Your task to perform on an android device: Search for pizza restaurants on Maps Image 0: 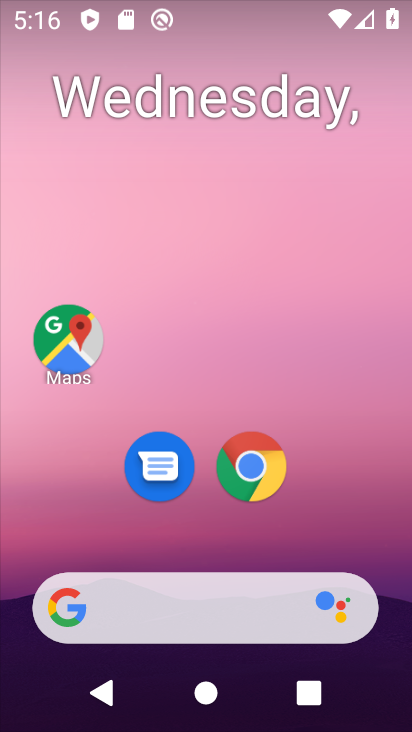
Step 0: click (82, 352)
Your task to perform on an android device: Search for pizza restaurants on Maps Image 1: 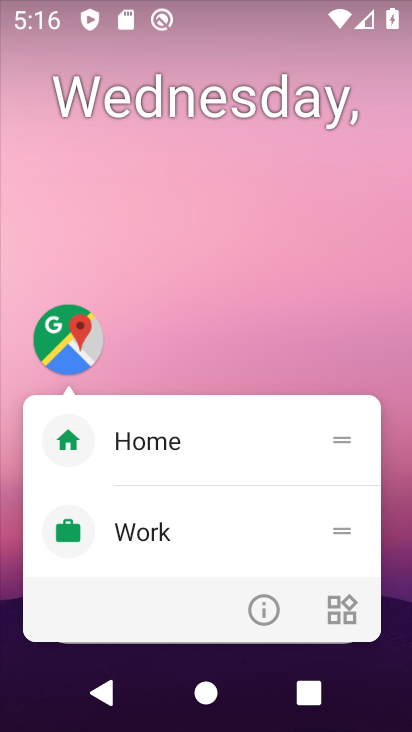
Step 1: click (40, 341)
Your task to perform on an android device: Search for pizza restaurants on Maps Image 2: 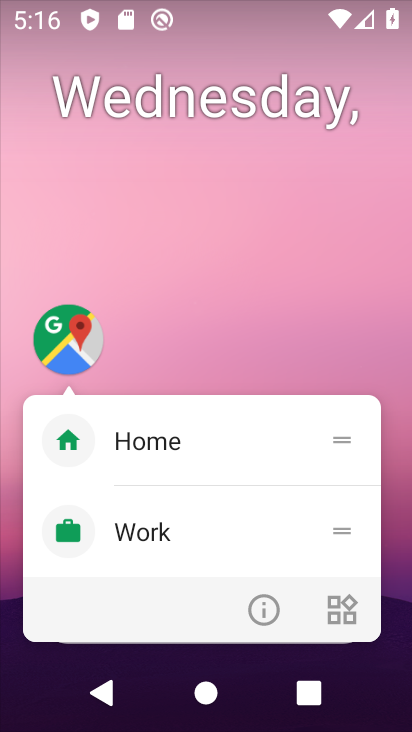
Step 2: click (33, 345)
Your task to perform on an android device: Search for pizza restaurants on Maps Image 3: 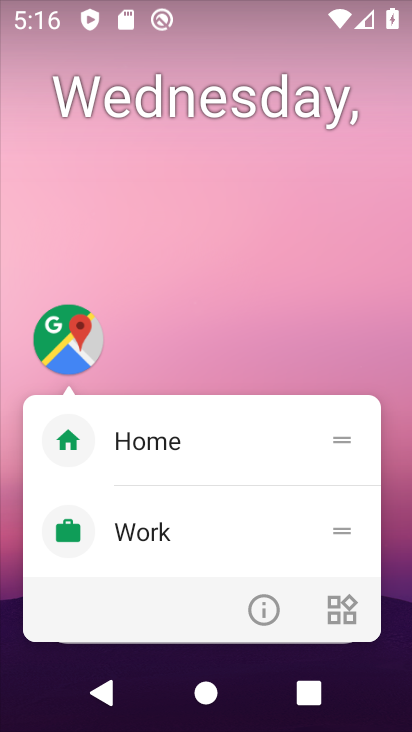
Step 3: click (33, 345)
Your task to perform on an android device: Search for pizza restaurants on Maps Image 4: 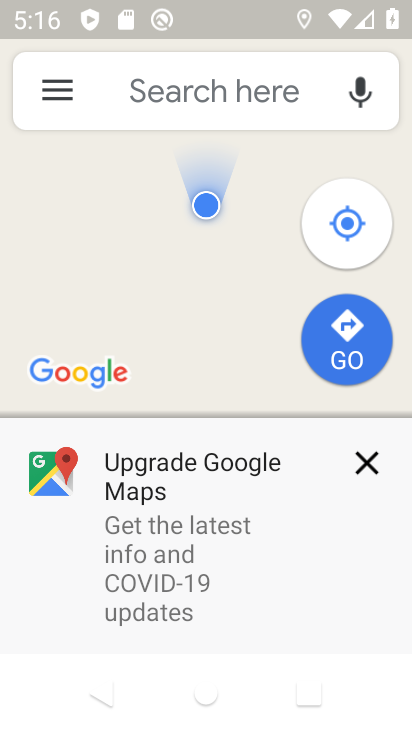
Step 4: click (140, 74)
Your task to perform on an android device: Search for pizza restaurants on Maps Image 5: 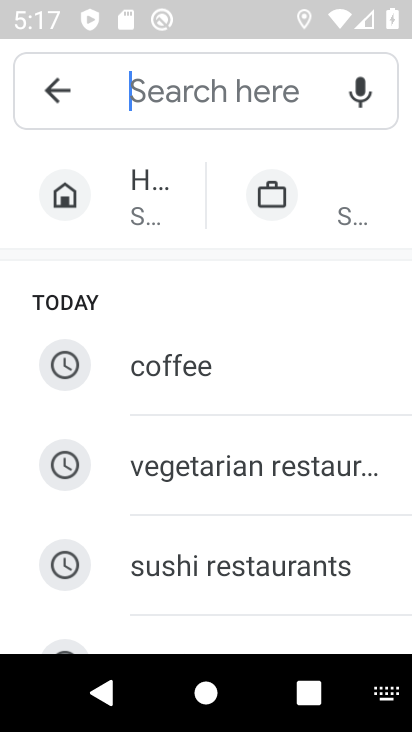
Step 5: type "pizza restaurants"
Your task to perform on an android device: Search for pizza restaurants on Maps Image 6: 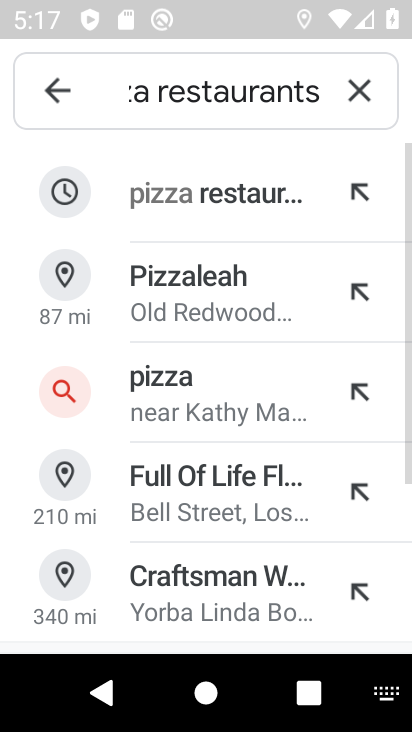
Step 6: click (191, 196)
Your task to perform on an android device: Search for pizza restaurants on Maps Image 7: 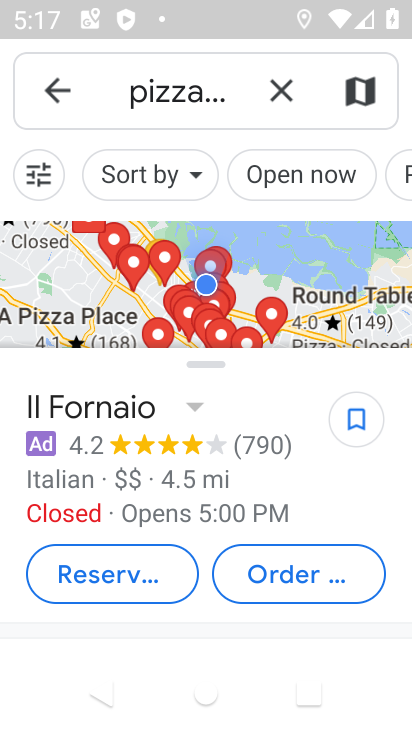
Step 7: task complete